Your task to perform on an android device: Open Maps and search for coffee Image 0: 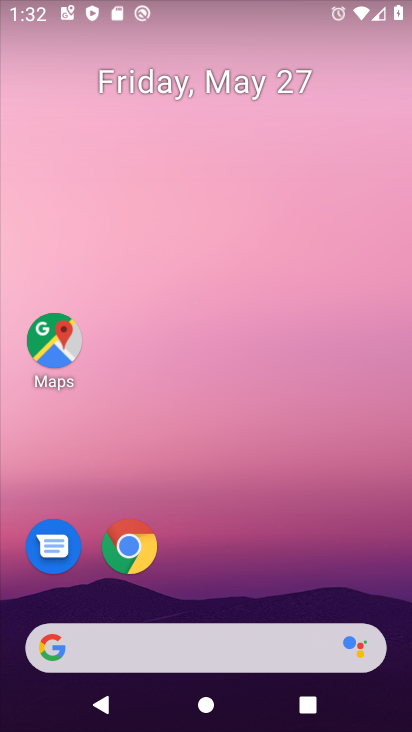
Step 0: press home button
Your task to perform on an android device: Open Maps and search for coffee Image 1: 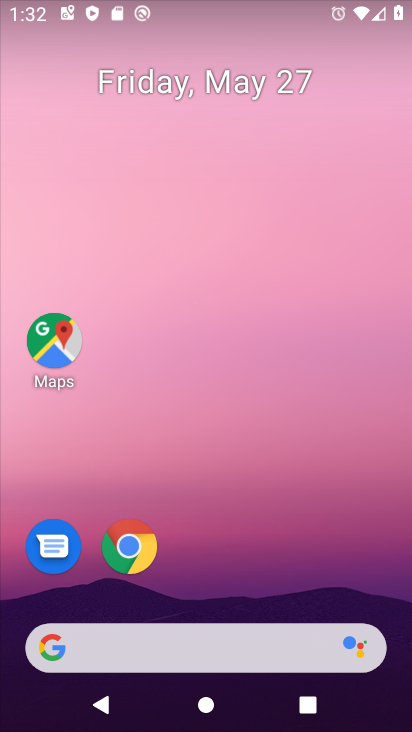
Step 1: drag from (288, 664) to (336, 147)
Your task to perform on an android device: Open Maps and search for coffee Image 2: 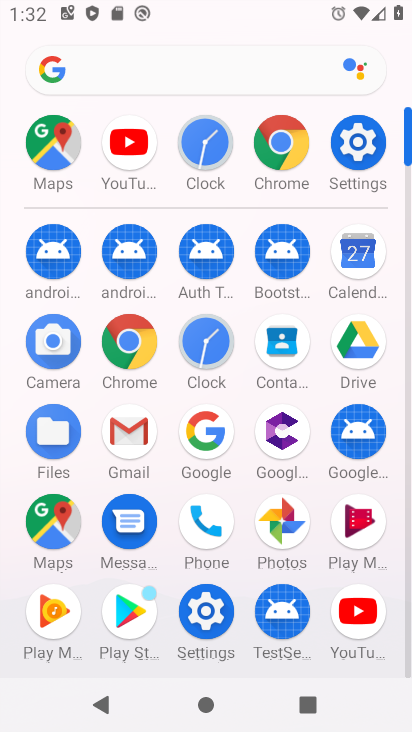
Step 2: click (59, 142)
Your task to perform on an android device: Open Maps and search for coffee Image 3: 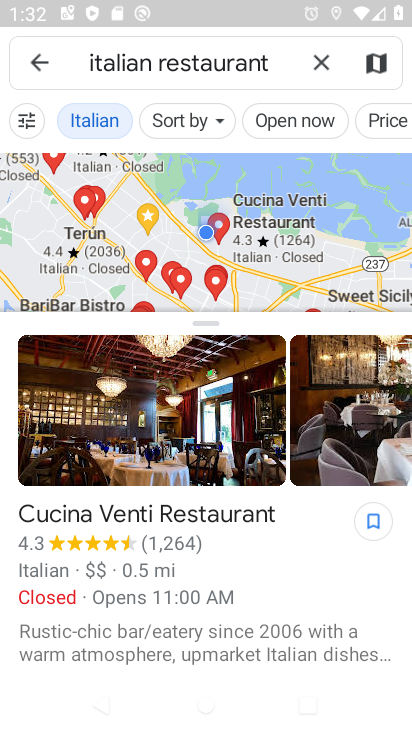
Step 3: click (316, 56)
Your task to perform on an android device: Open Maps and search for coffee Image 4: 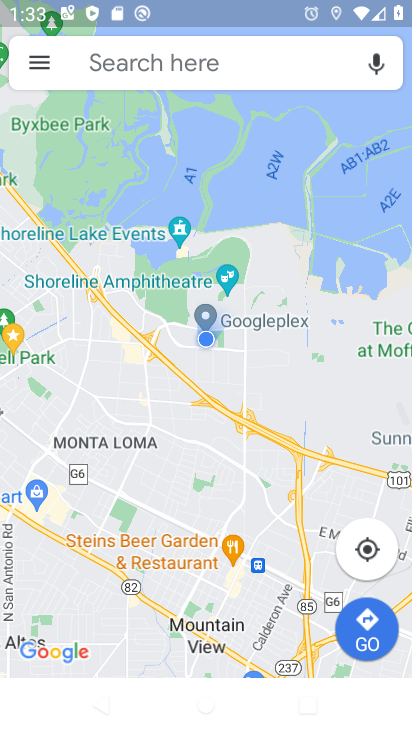
Step 4: click (173, 60)
Your task to perform on an android device: Open Maps and search for coffee Image 5: 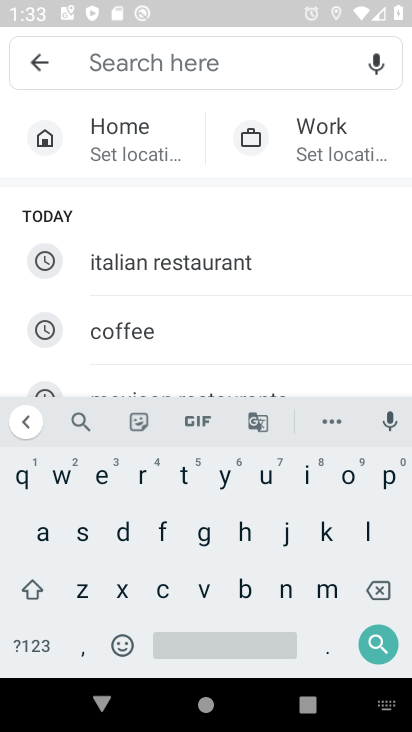
Step 5: click (159, 332)
Your task to perform on an android device: Open Maps and search for coffee Image 6: 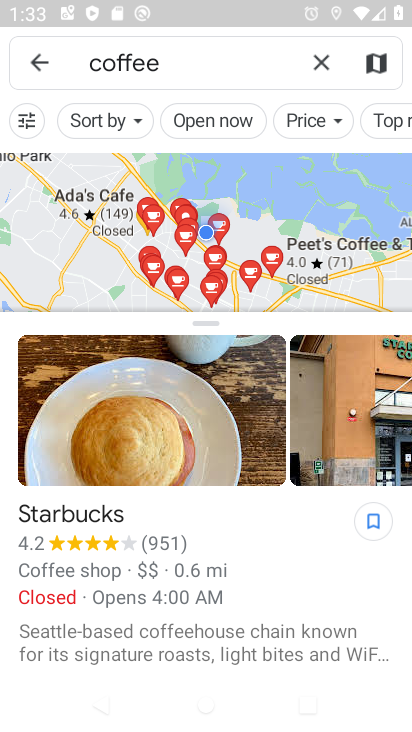
Step 6: click (264, 221)
Your task to perform on an android device: Open Maps and search for coffee Image 7: 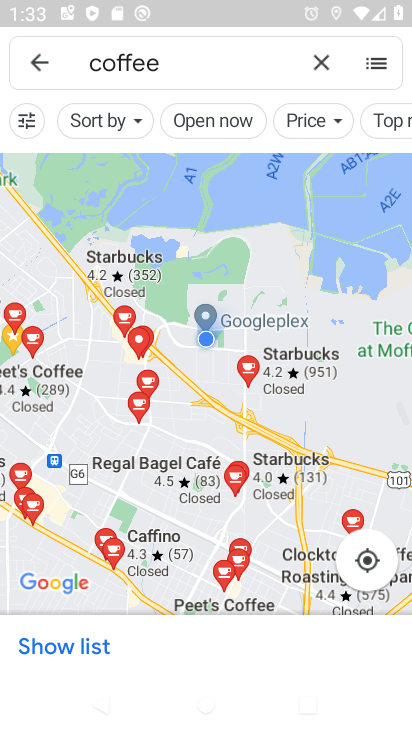
Step 7: task complete